Your task to perform on an android device: Go to ESPN.com Image 0: 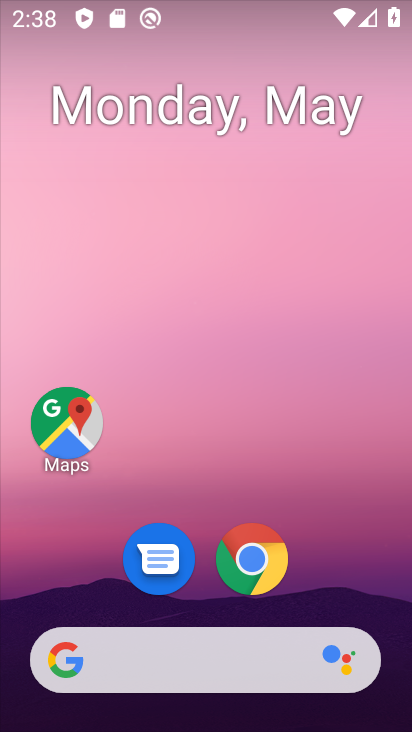
Step 0: drag from (325, 569) to (289, 1)
Your task to perform on an android device: Go to ESPN.com Image 1: 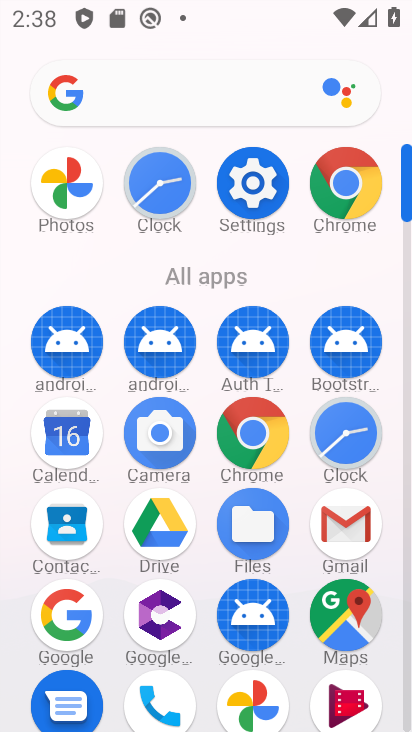
Step 1: drag from (16, 539) to (30, 206)
Your task to perform on an android device: Go to ESPN.com Image 2: 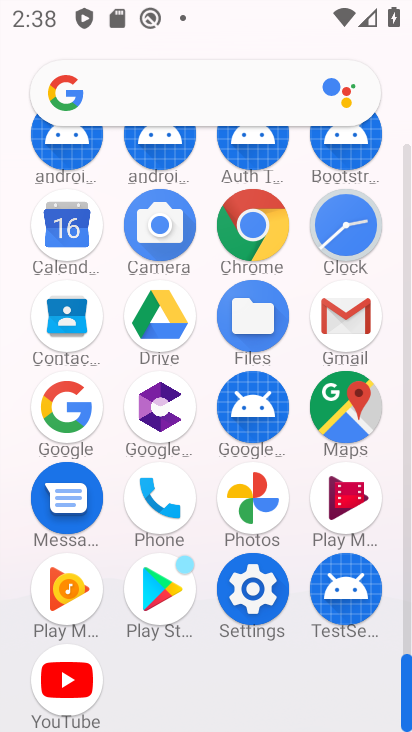
Step 2: drag from (9, 480) to (0, 175)
Your task to perform on an android device: Go to ESPN.com Image 3: 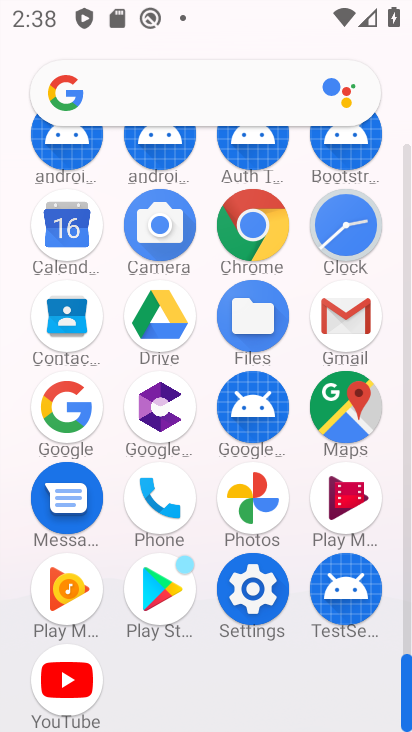
Step 3: click (256, 220)
Your task to perform on an android device: Go to ESPN.com Image 4: 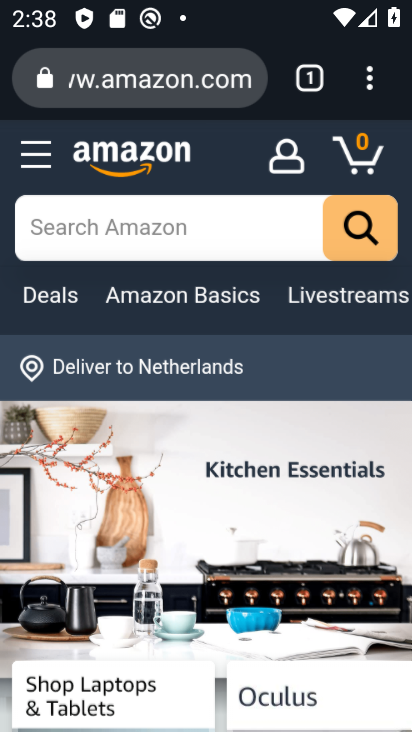
Step 4: click (185, 53)
Your task to perform on an android device: Go to ESPN.com Image 5: 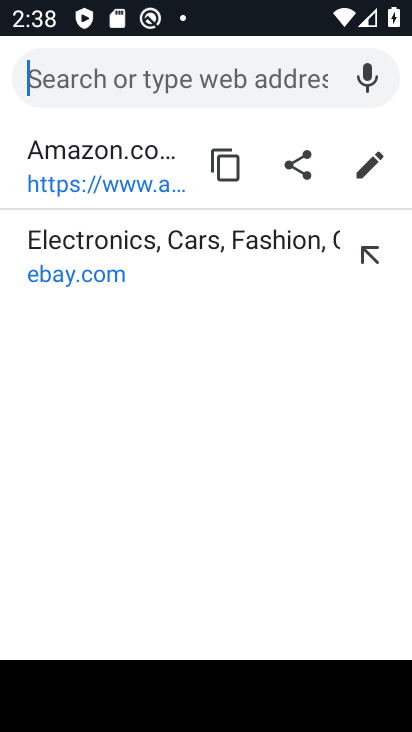
Step 5: type "ESPN.com"
Your task to perform on an android device: Go to ESPN.com Image 6: 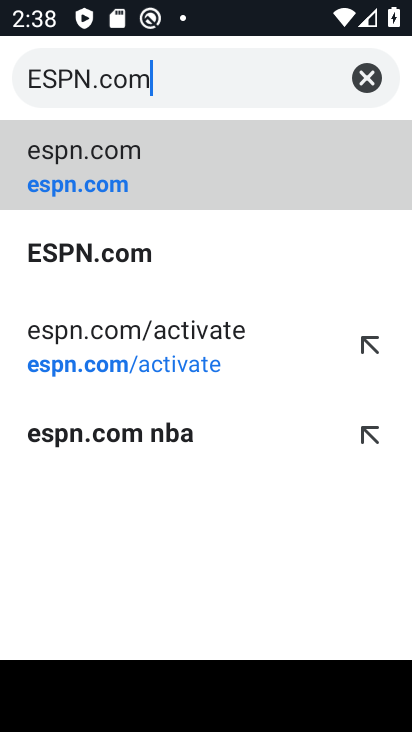
Step 6: click (210, 180)
Your task to perform on an android device: Go to ESPN.com Image 7: 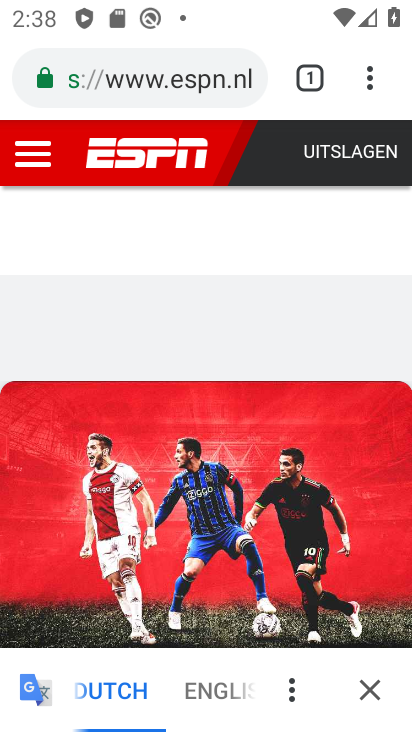
Step 7: drag from (273, 525) to (259, 226)
Your task to perform on an android device: Go to ESPN.com Image 8: 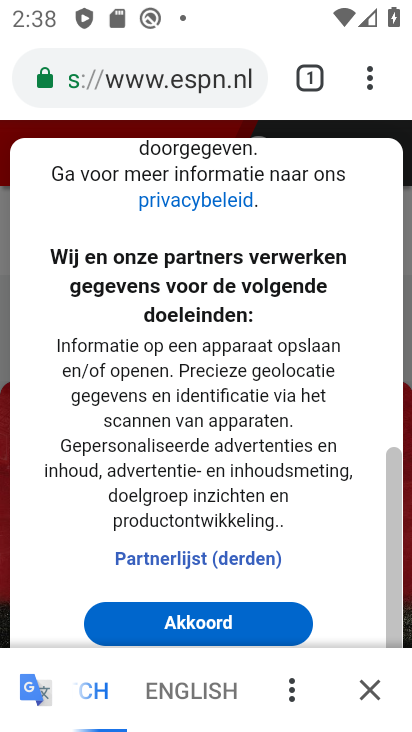
Step 8: click (273, 617)
Your task to perform on an android device: Go to ESPN.com Image 9: 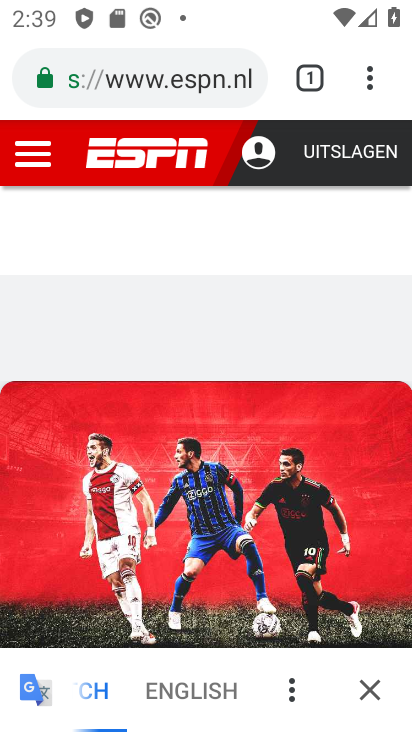
Step 9: task complete